Your task to perform on an android device: change text size in settings app Image 0: 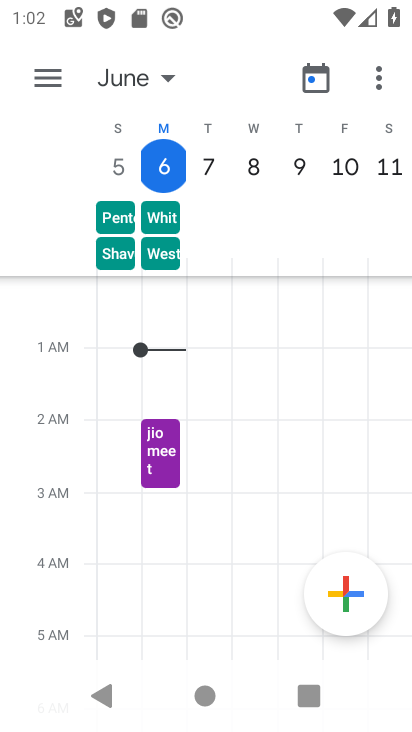
Step 0: press home button
Your task to perform on an android device: change text size in settings app Image 1: 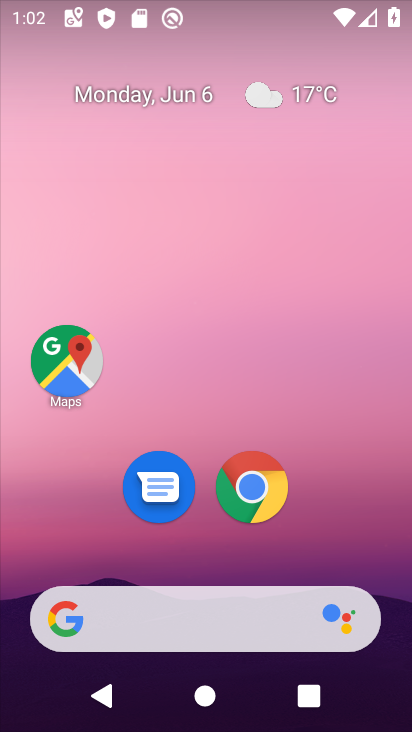
Step 1: drag from (93, 584) to (215, 2)
Your task to perform on an android device: change text size in settings app Image 2: 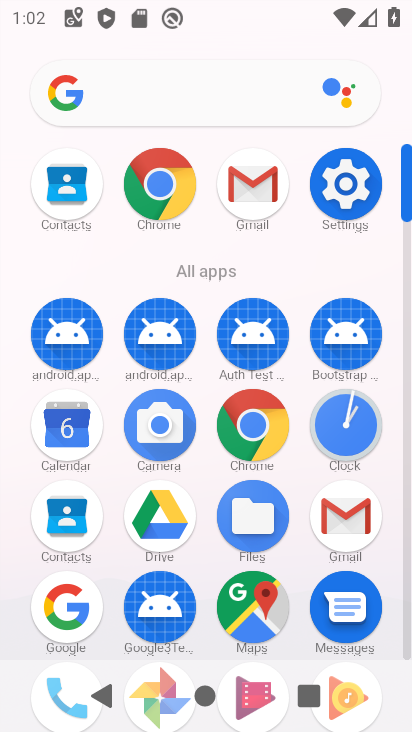
Step 2: drag from (205, 458) to (240, 343)
Your task to perform on an android device: change text size in settings app Image 3: 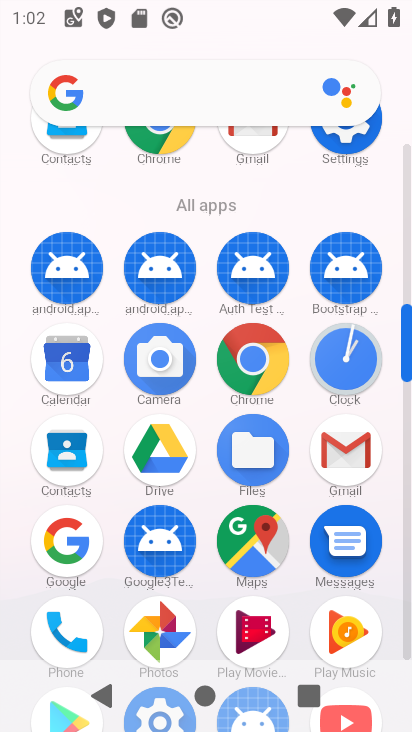
Step 3: drag from (174, 626) to (250, 374)
Your task to perform on an android device: change text size in settings app Image 4: 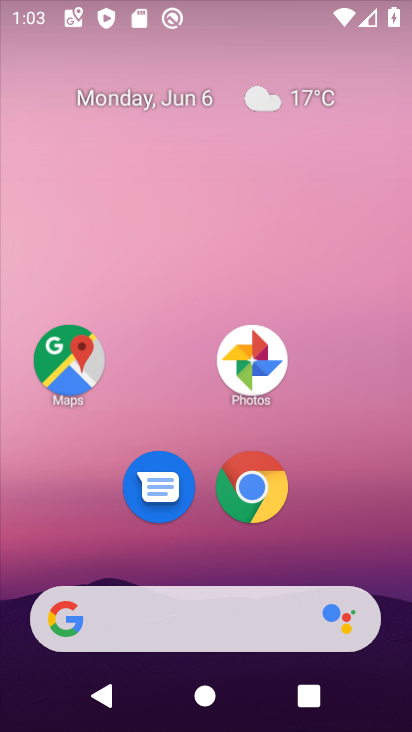
Step 4: drag from (117, 599) to (227, 54)
Your task to perform on an android device: change text size in settings app Image 5: 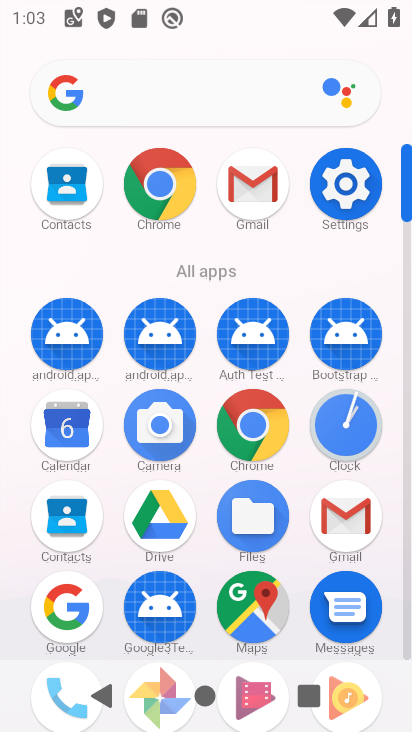
Step 5: drag from (137, 573) to (215, 189)
Your task to perform on an android device: change text size in settings app Image 6: 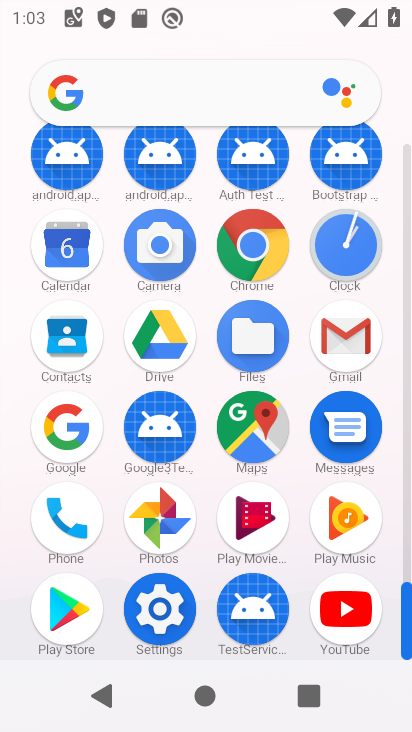
Step 6: click (165, 625)
Your task to perform on an android device: change text size in settings app Image 7: 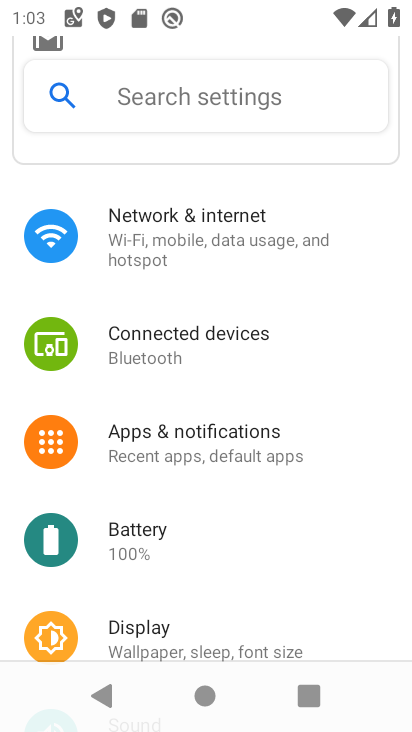
Step 7: drag from (151, 545) to (218, 318)
Your task to perform on an android device: change text size in settings app Image 8: 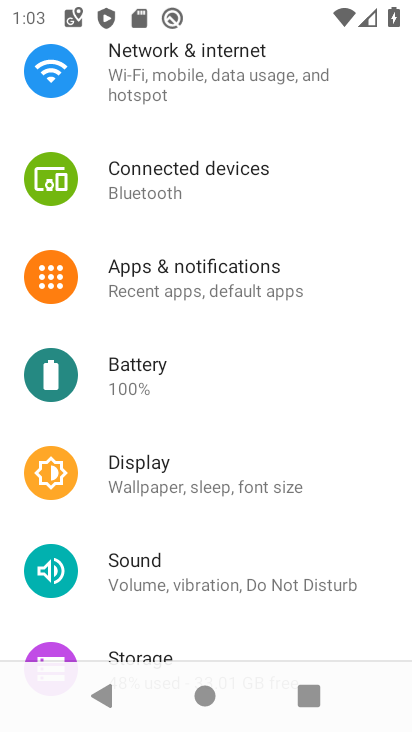
Step 8: click (196, 491)
Your task to perform on an android device: change text size in settings app Image 9: 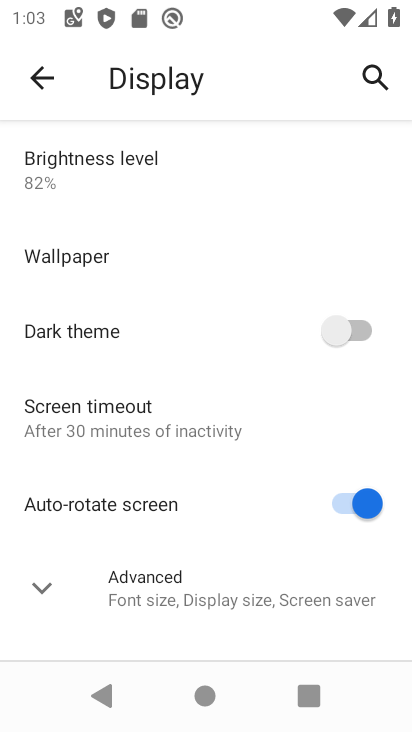
Step 9: click (236, 597)
Your task to perform on an android device: change text size in settings app Image 10: 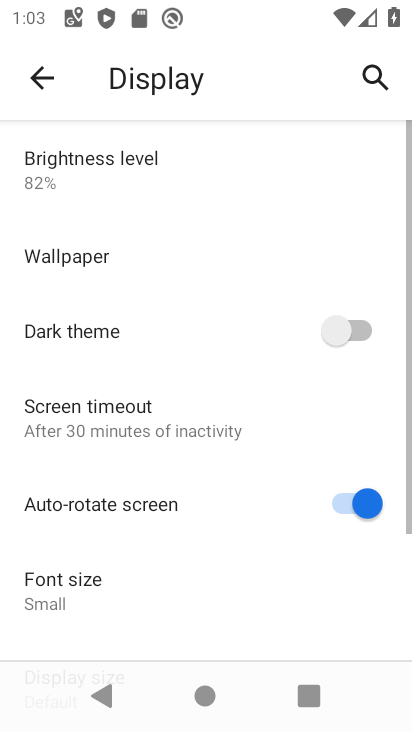
Step 10: drag from (236, 597) to (321, 204)
Your task to perform on an android device: change text size in settings app Image 11: 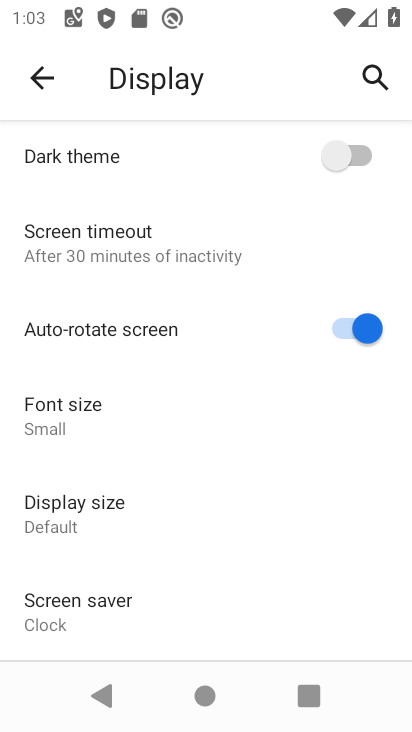
Step 11: click (135, 408)
Your task to perform on an android device: change text size in settings app Image 12: 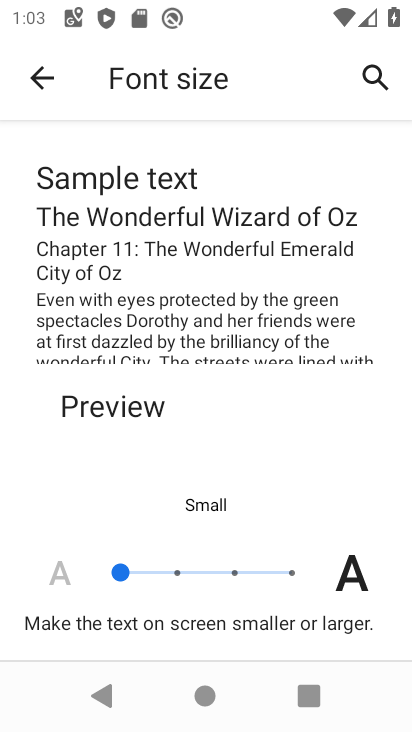
Step 12: click (171, 572)
Your task to perform on an android device: change text size in settings app Image 13: 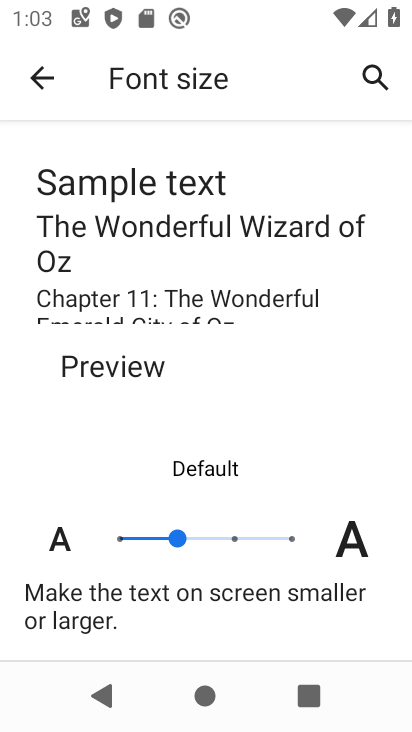
Step 13: click (227, 530)
Your task to perform on an android device: change text size in settings app Image 14: 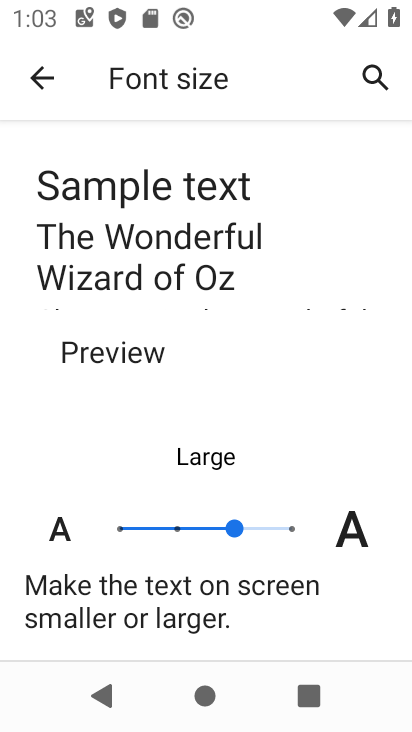
Step 14: task complete